Your task to perform on an android device: Is it going to rain tomorrow? Image 0: 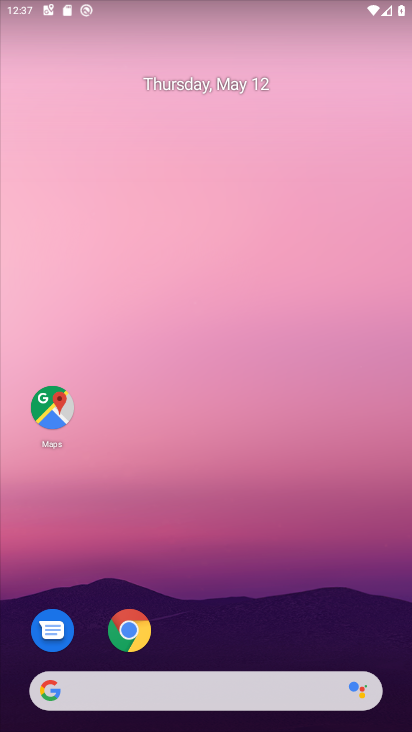
Step 0: drag from (237, 605) to (281, 69)
Your task to perform on an android device: Is it going to rain tomorrow? Image 1: 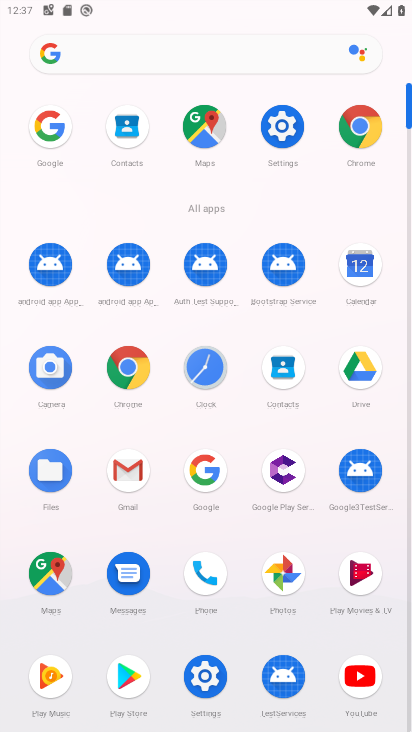
Step 1: click (363, 135)
Your task to perform on an android device: Is it going to rain tomorrow? Image 2: 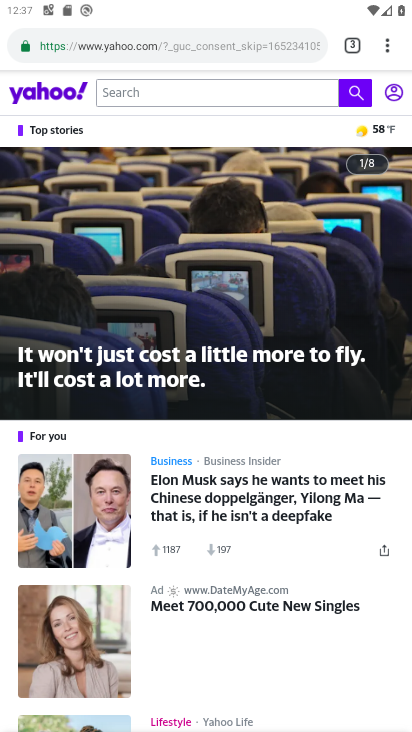
Step 2: drag from (385, 43) to (216, 93)
Your task to perform on an android device: Is it going to rain tomorrow? Image 3: 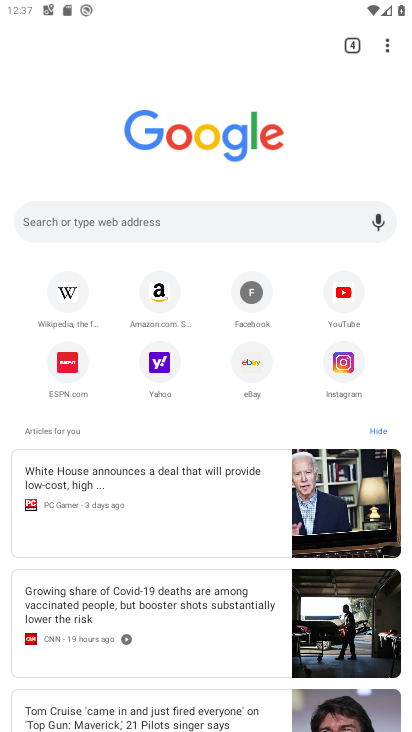
Step 3: click (235, 216)
Your task to perform on an android device: Is it going to rain tomorrow? Image 4: 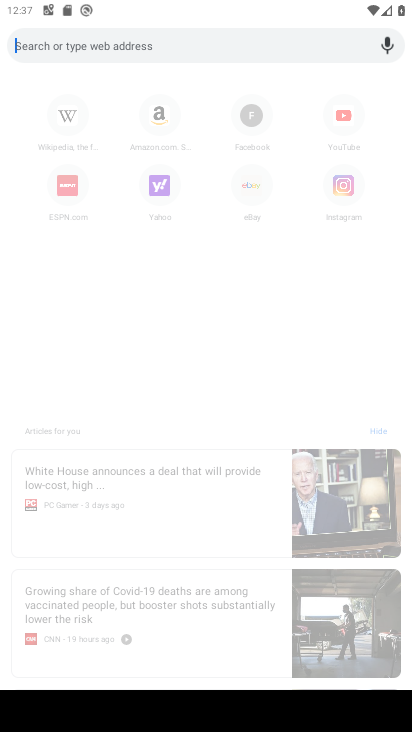
Step 4: type "Is it going to rain tomorrow?"
Your task to perform on an android device: Is it going to rain tomorrow? Image 5: 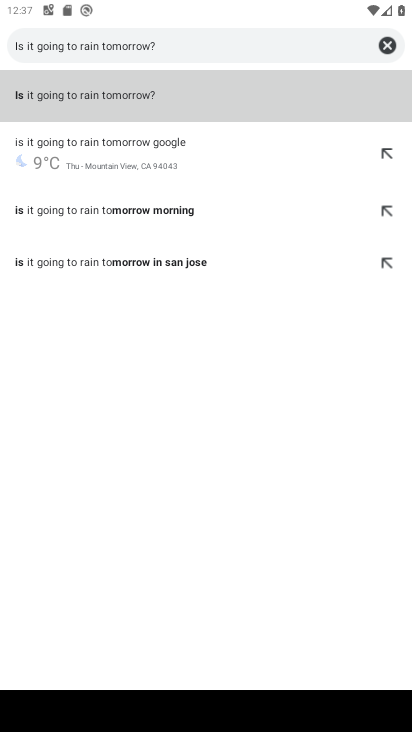
Step 5: click (114, 86)
Your task to perform on an android device: Is it going to rain tomorrow? Image 6: 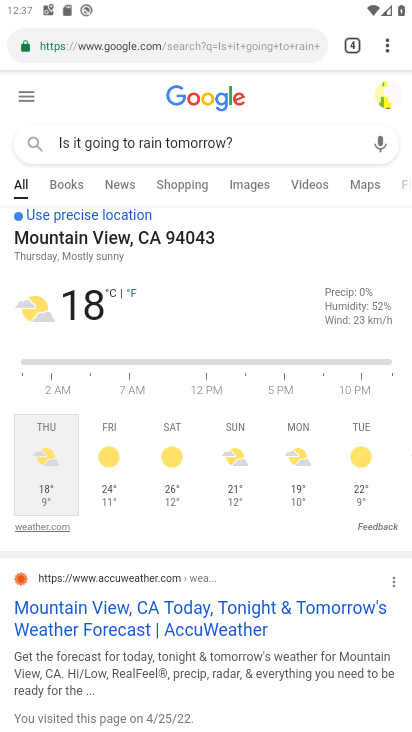
Step 6: task complete